Your task to perform on an android device: open wifi settings Image 0: 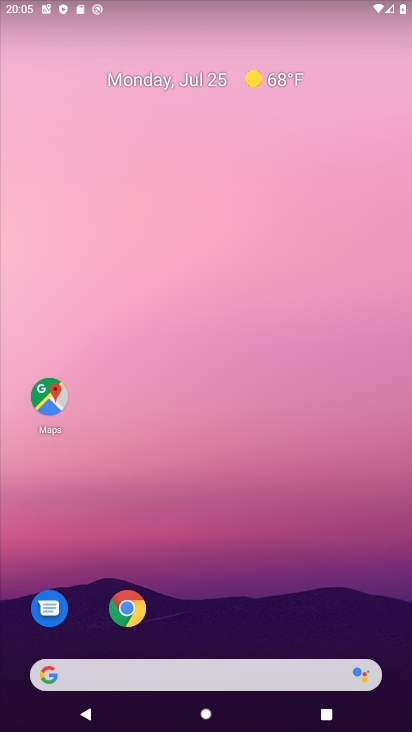
Step 0: drag from (235, 643) to (171, 1)
Your task to perform on an android device: open wifi settings Image 1: 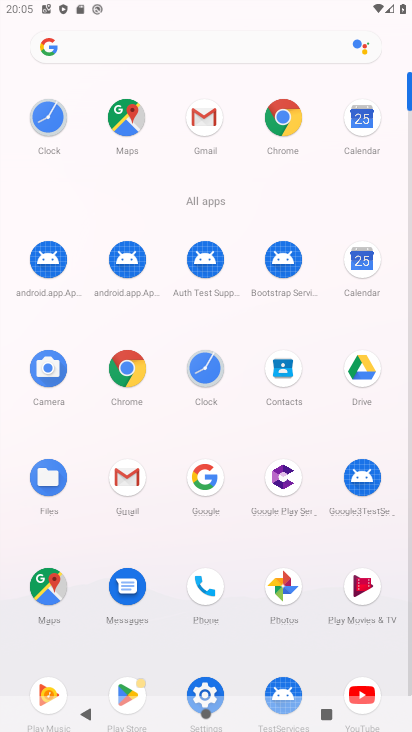
Step 1: click (197, 682)
Your task to perform on an android device: open wifi settings Image 2: 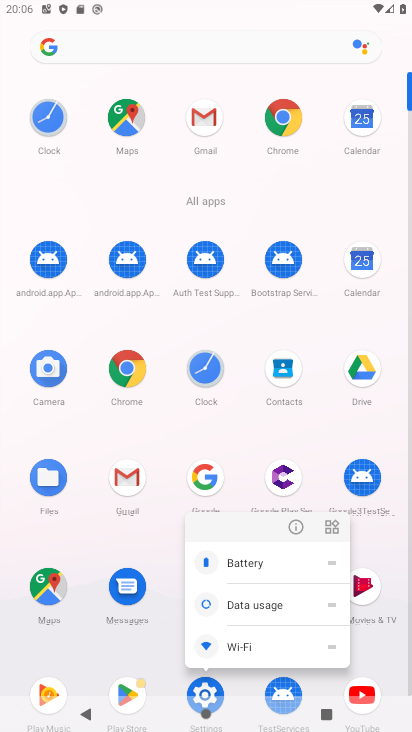
Step 2: click (229, 649)
Your task to perform on an android device: open wifi settings Image 3: 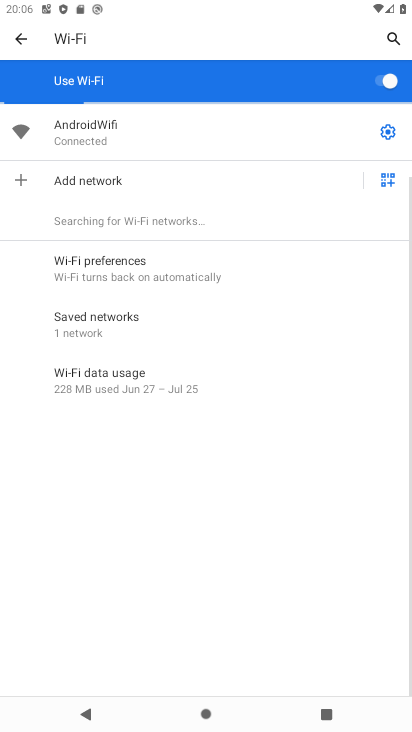
Step 3: click (378, 126)
Your task to perform on an android device: open wifi settings Image 4: 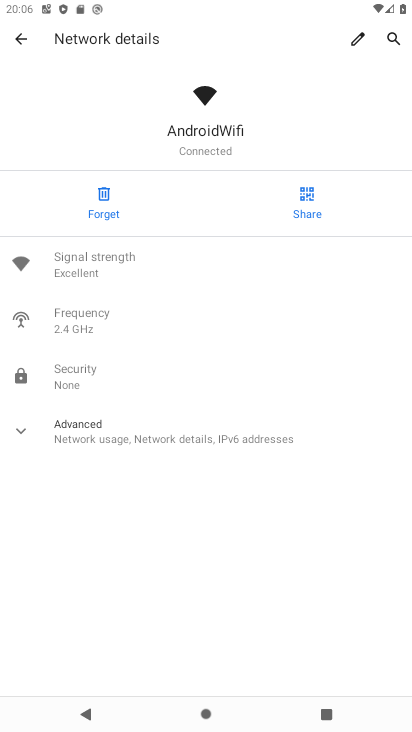
Step 4: task complete